Your task to perform on an android device: Go to settings Image 0: 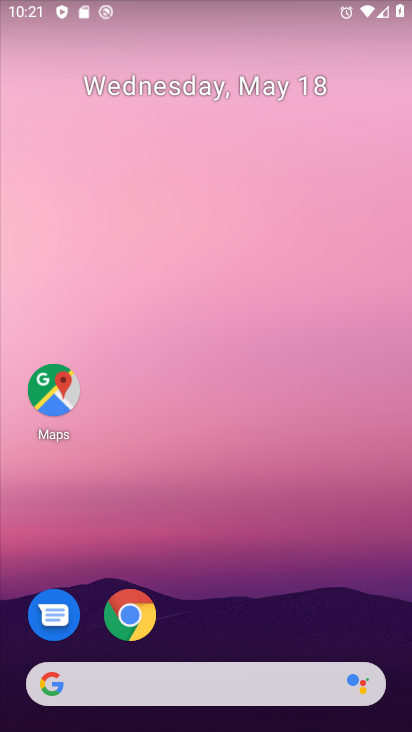
Step 0: drag from (216, 635) to (182, 255)
Your task to perform on an android device: Go to settings Image 1: 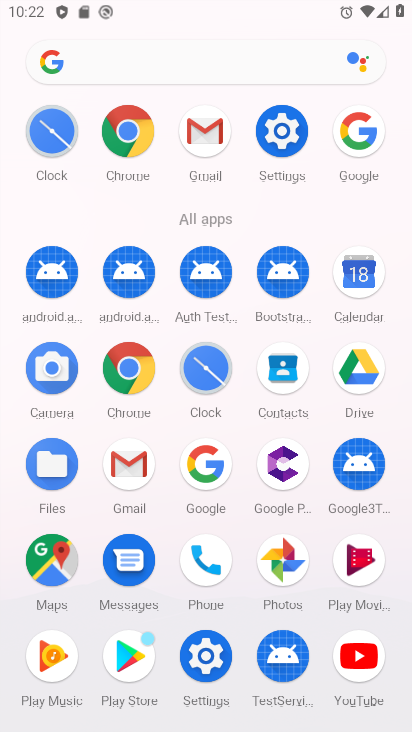
Step 1: click (272, 131)
Your task to perform on an android device: Go to settings Image 2: 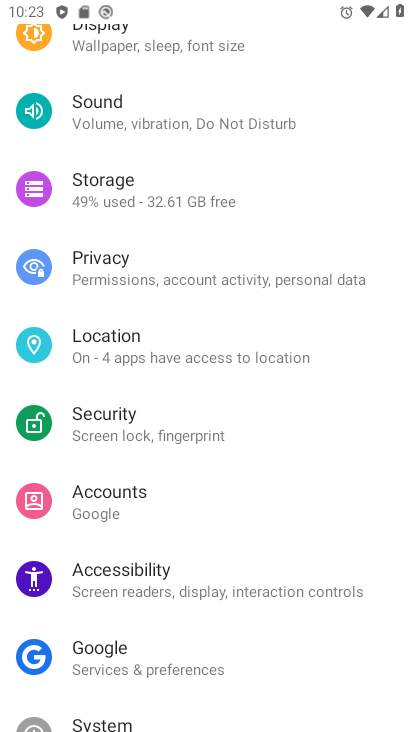
Step 2: task complete